Your task to perform on an android device: Open Google Maps Image 0: 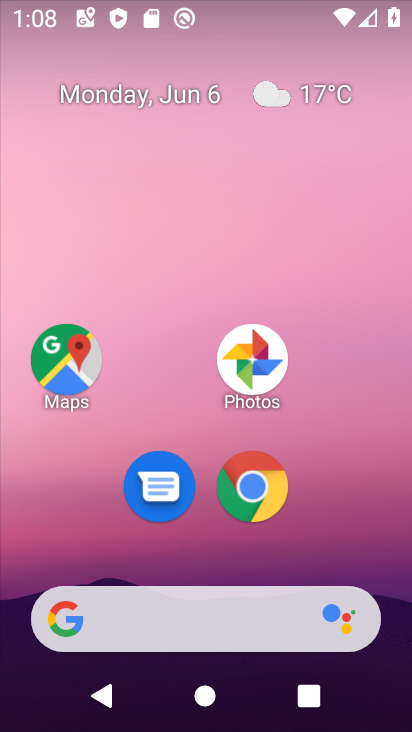
Step 0: click (74, 366)
Your task to perform on an android device: Open Google Maps Image 1: 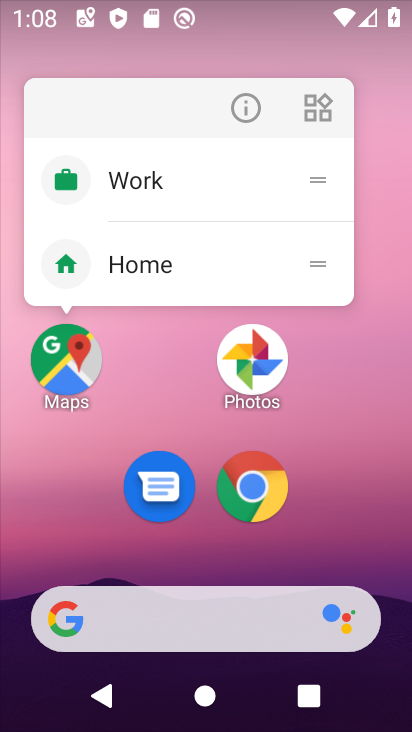
Step 1: click (74, 366)
Your task to perform on an android device: Open Google Maps Image 2: 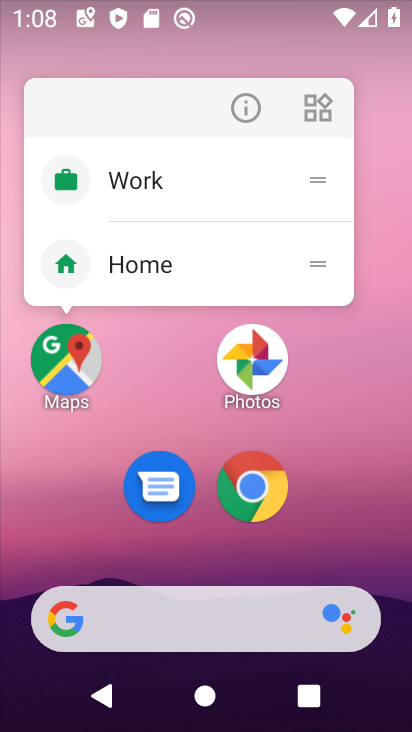
Step 2: click (73, 379)
Your task to perform on an android device: Open Google Maps Image 3: 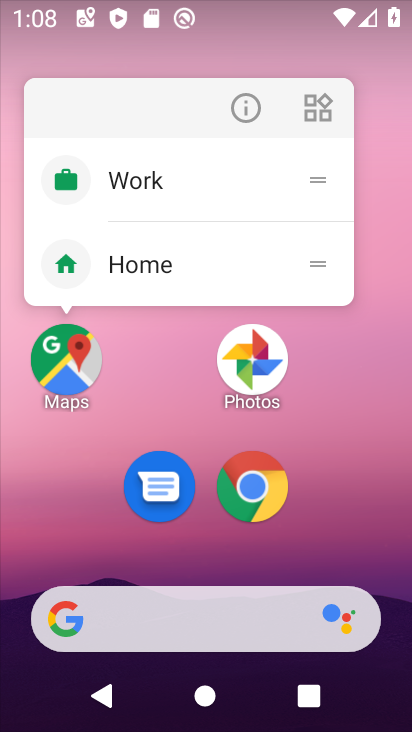
Step 3: click (72, 373)
Your task to perform on an android device: Open Google Maps Image 4: 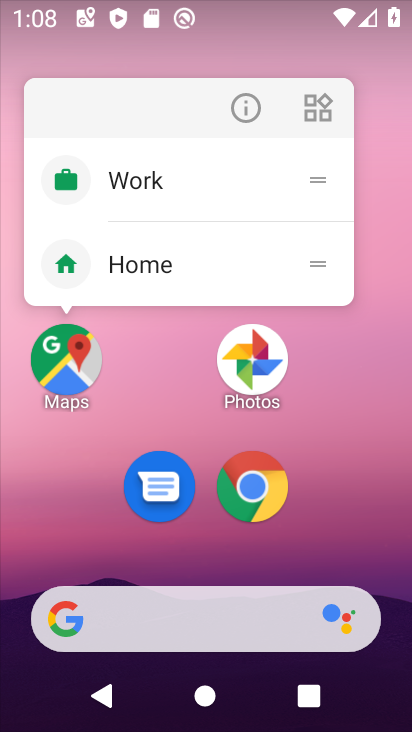
Step 4: click (91, 354)
Your task to perform on an android device: Open Google Maps Image 5: 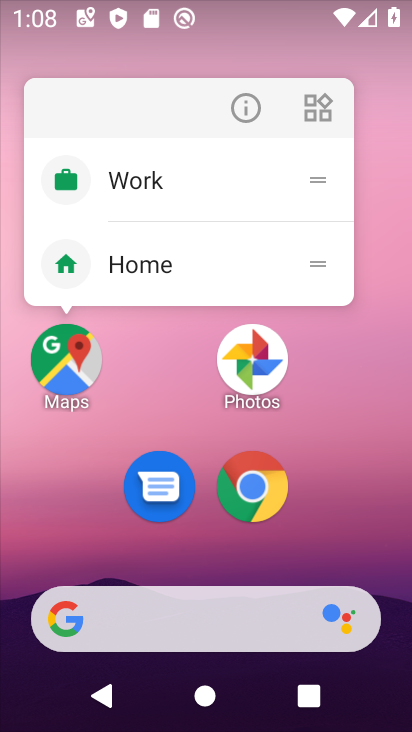
Step 5: click (65, 381)
Your task to perform on an android device: Open Google Maps Image 6: 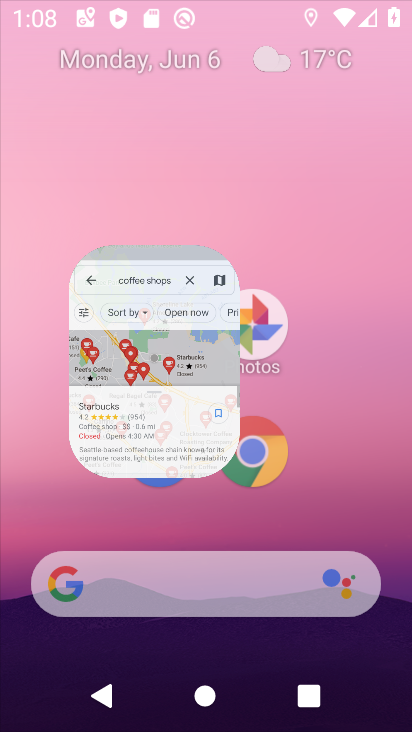
Step 6: click (56, 358)
Your task to perform on an android device: Open Google Maps Image 7: 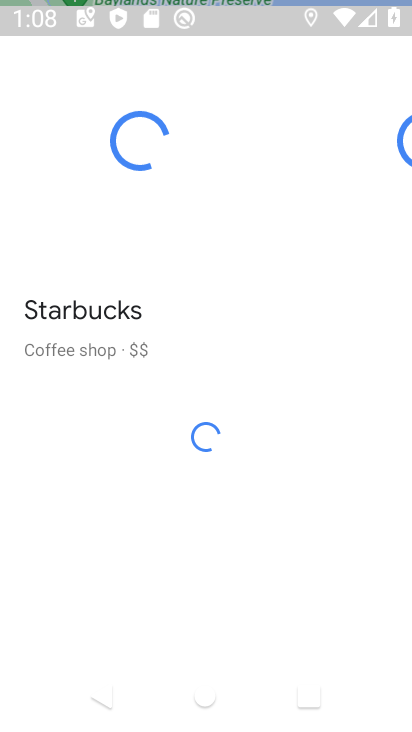
Step 7: task complete